Your task to perform on an android device: turn on translation in the chrome app Image 0: 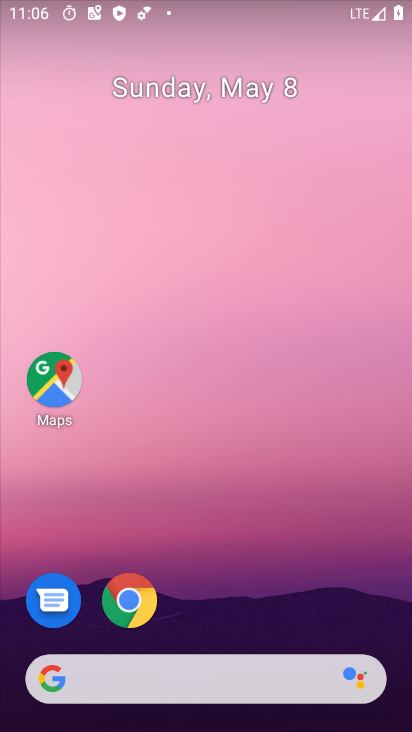
Step 0: drag from (86, 556) to (278, 128)
Your task to perform on an android device: turn on translation in the chrome app Image 1: 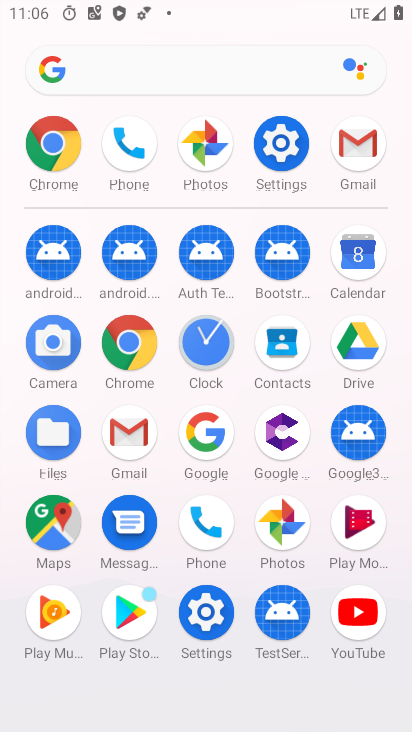
Step 1: click (124, 339)
Your task to perform on an android device: turn on translation in the chrome app Image 2: 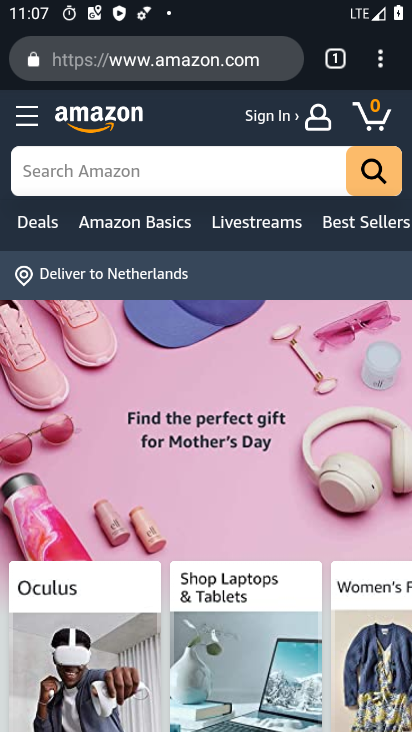
Step 2: click (373, 55)
Your task to perform on an android device: turn on translation in the chrome app Image 3: 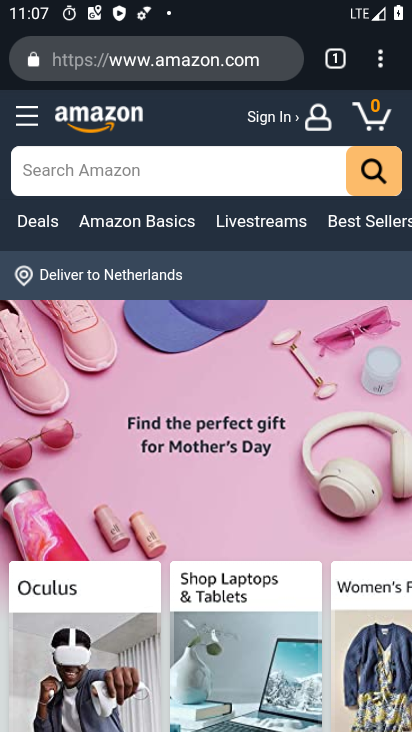
Step 3: click (383, 61)
Your task to perform on an android device: turn on translation in the chrome app Image 4: 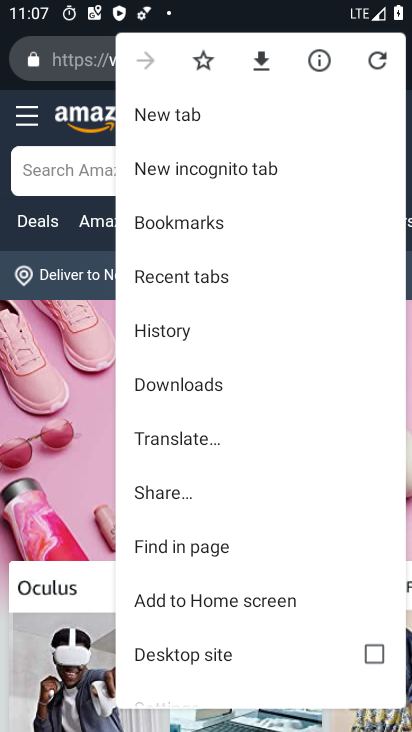
Step 4: drag from (213, 557) to (333, 210)
Your task to perform on an android device: turn on translation in the chrome app Image 5: 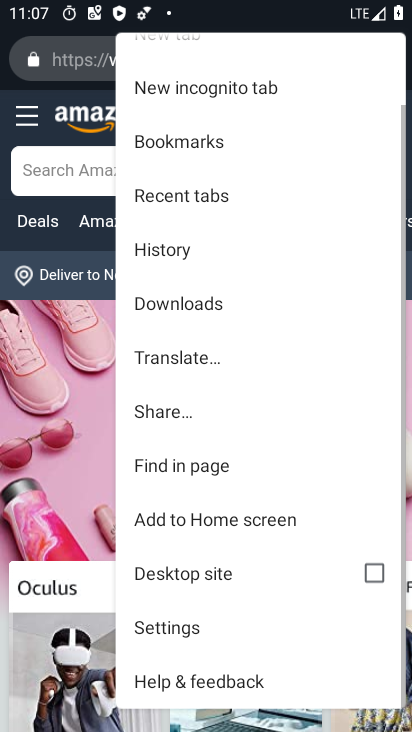
Step 5: click (203, 636)
Your task to perform on an android device: turn on translation in the chrome app Image 6: 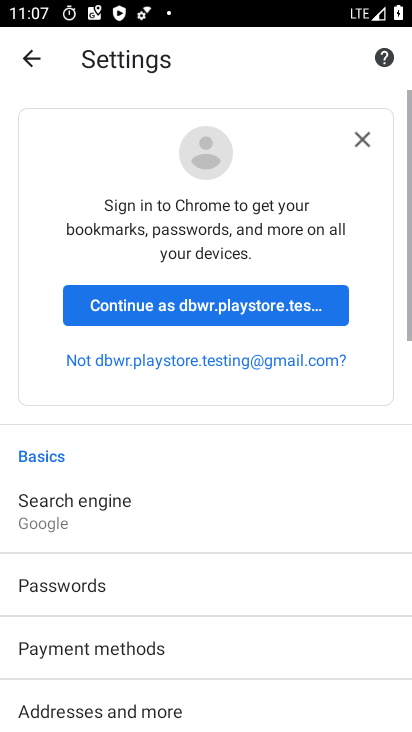
Step 6: drag from (206, 617) to (311, 218)
Your task to perform on an android device: turn on translation in the chrome app Image 7: 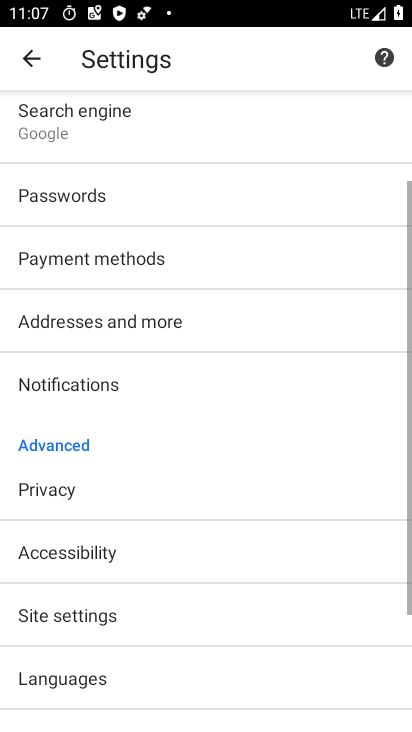
Step 7: click (84, 674)
Your task to perform on an android device: turn on translation in the chrome app Image 8: 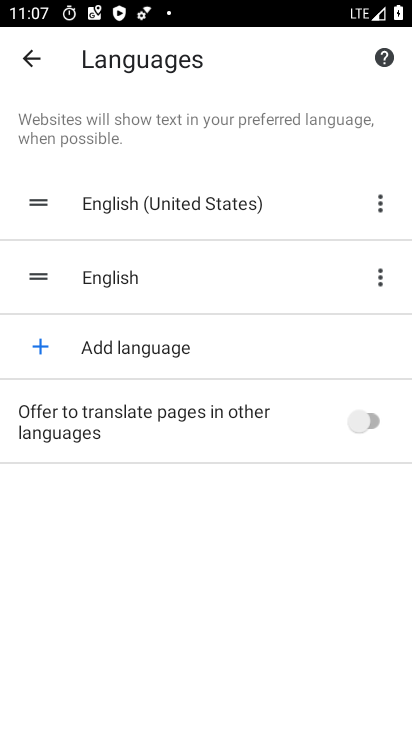
Step 8: click (357, 425)
Your task to perform on an android device: turn on translation in the chrome app Image 9: 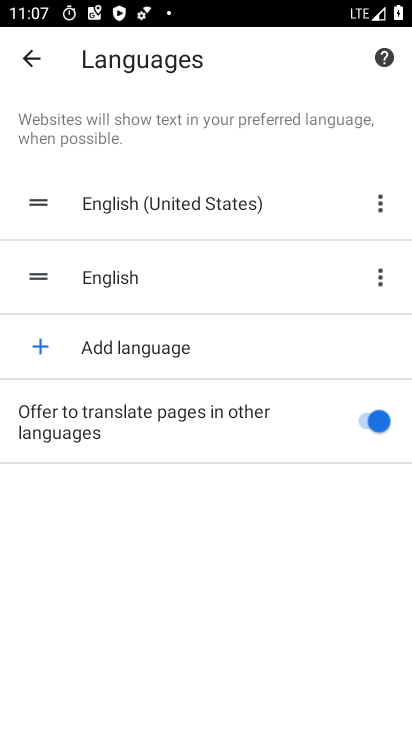
Step 9: task complete